Your task to perform on an android device: read, delete, or share a saved page in the chrome app Image 0: 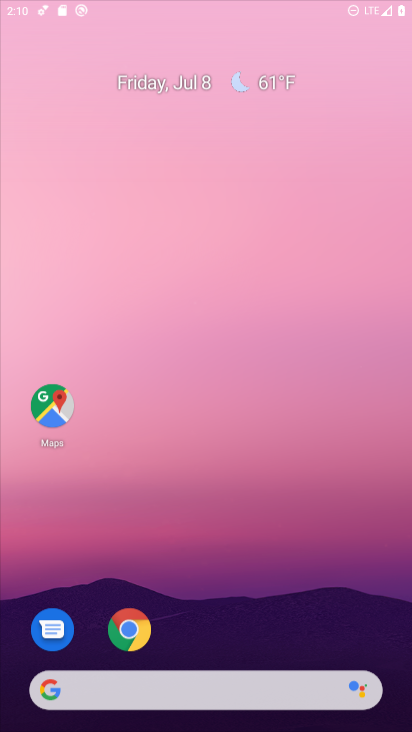
Step 0: drag from (361, 557) to (252, 5)
Your task to perform on an android device: read, delete, or share a saved page in the chrome app Image 1: 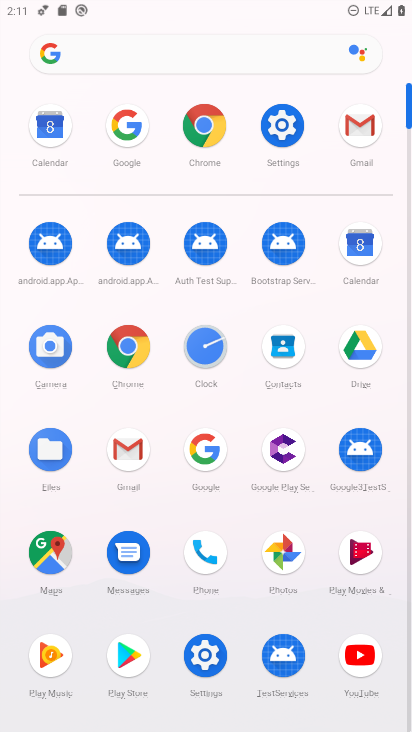
Step 1: click (195, 151)
Your task to perform on an android device: read, delete, or share a saved page in the chrome app Image 2: 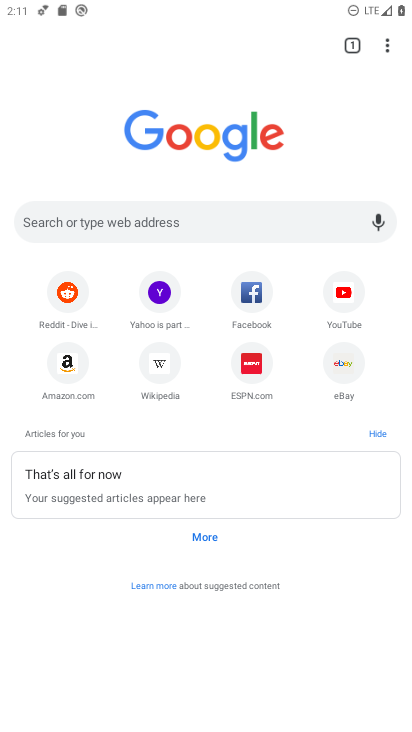
Step 2: task complete